Your task to perform on an android device: Go to battery settings Image 0: 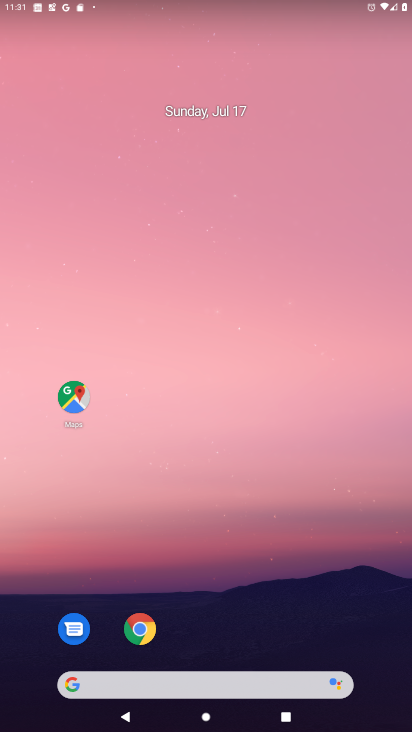
Step 0: drag from (226, 684) to (314, 66)
Your task to perform on an android device: Go to battery settings Image 1: 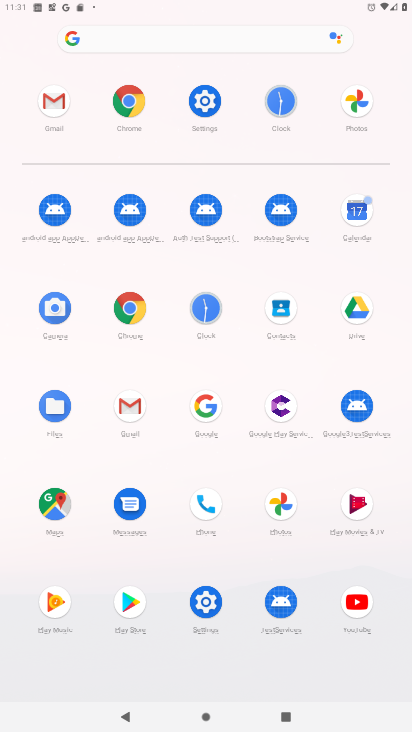
Step 1: click (205, 101)
Your task to perform on an android device: Go to battery settings Image 2: 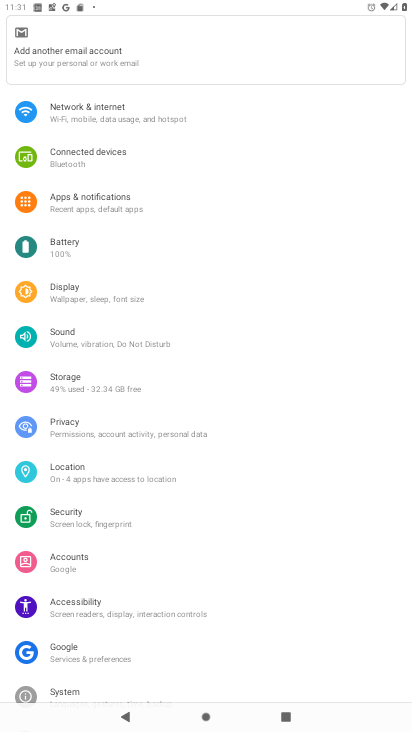
Step 2: click (72, 253)
Your task to perform on an android device: Go to battery settings Image 3: 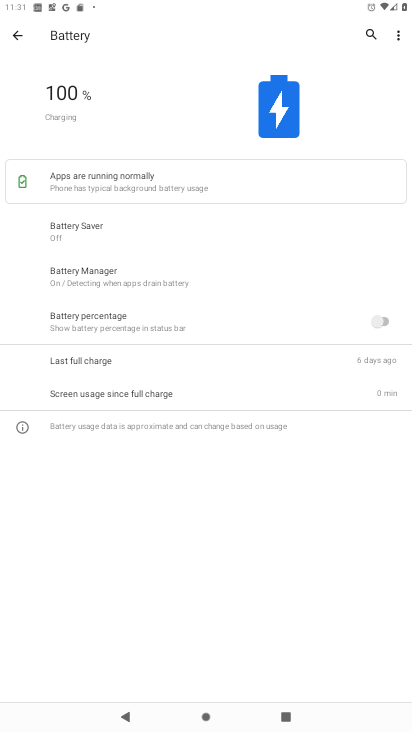
Step 3: task complete